Your task to perform on an android device: visit the assistant section in the google photos Image 0: 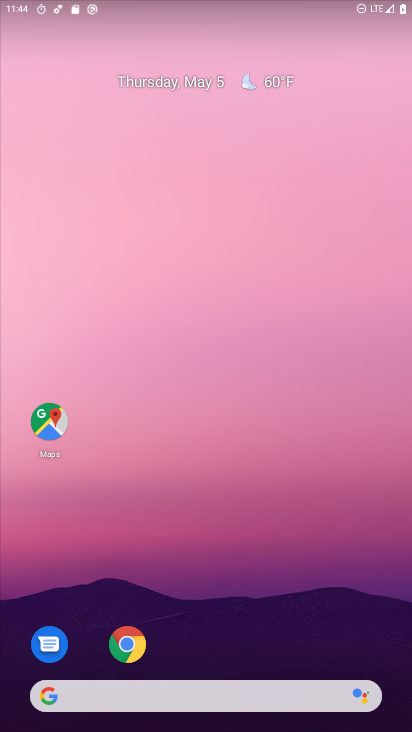
Step 0: drag from (358, 620) to (371, 59)
Your task to perform on an android device: visit the assistant section in the google photos Image 1: 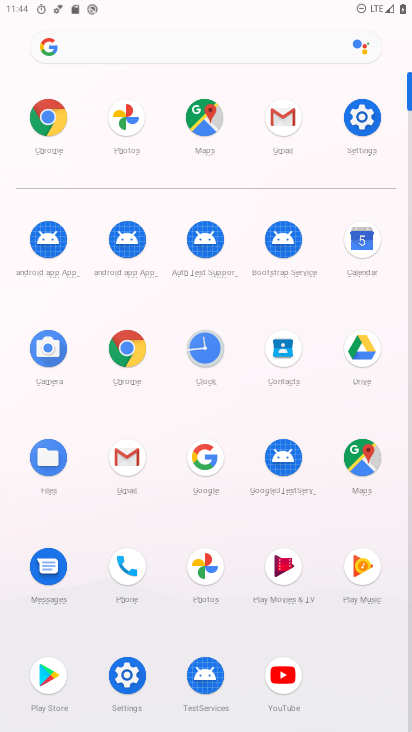
Step 1: click (214, 563)
Your task to perform on an android device: visit the assistant section in the google photos Image 2: 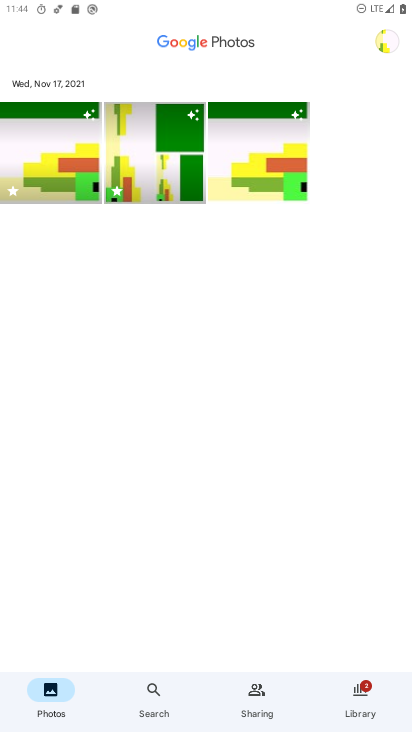
Step 2: click (158, 683)
Your task to perform on an android device: visit the assistant section in the google photos Image 3: 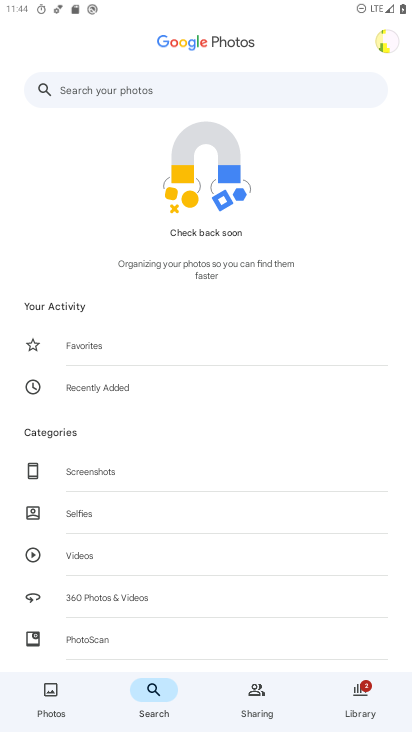
Step 3: click (170, 94)
Your task to perform on an android device: visit the assistant section in the google photos Image 4: 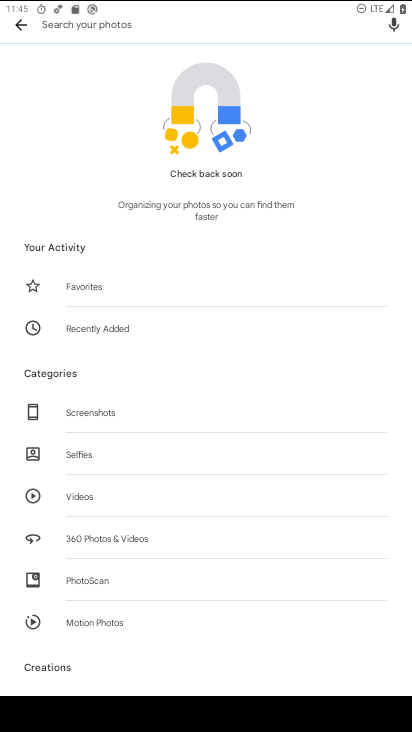
Step 4: type "assistant sections"
Your task to perform on an android device: visit the assistant section in the google photos Image 5: 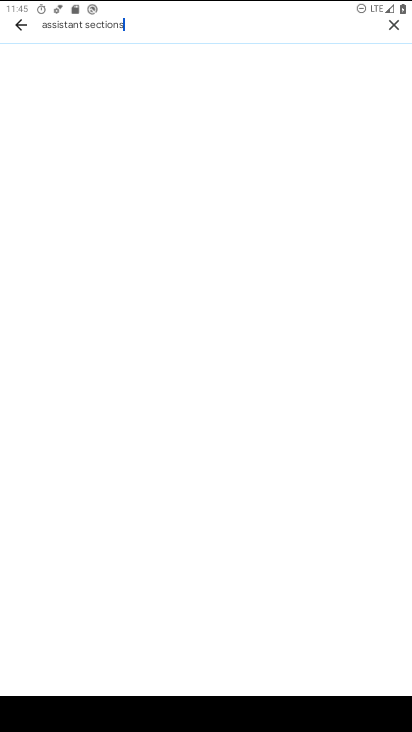
Step 5: task complete